Your task to perform on an android device: clear history in the chrome app Image 0: 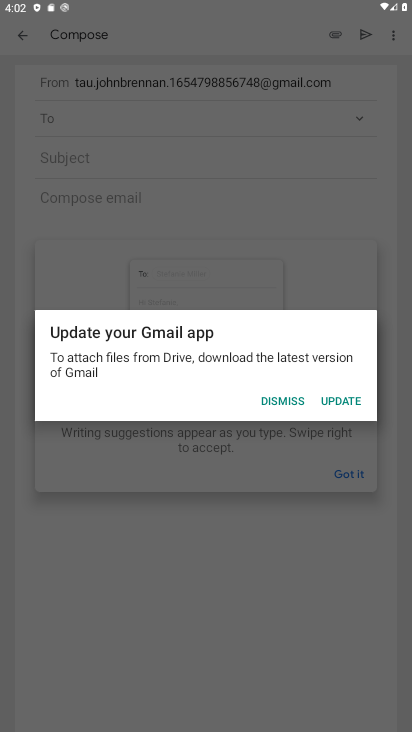
Step 0: press back button
Your task to perform on an android device: clear history in the chrome app Image 1: 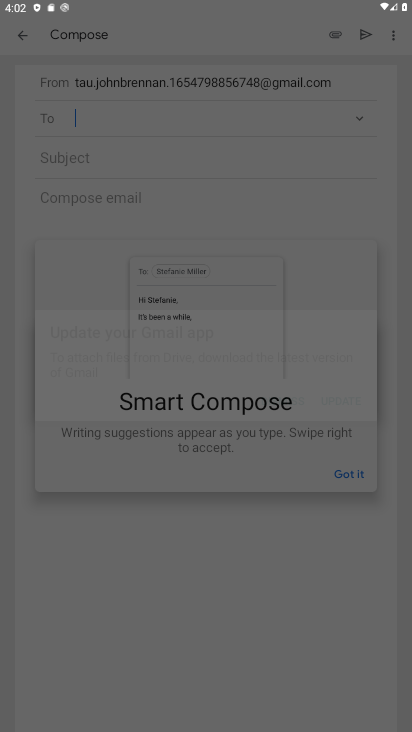
Step 1: press back button
Your task to perform on an android device: clear history in the chrome app Image 2: 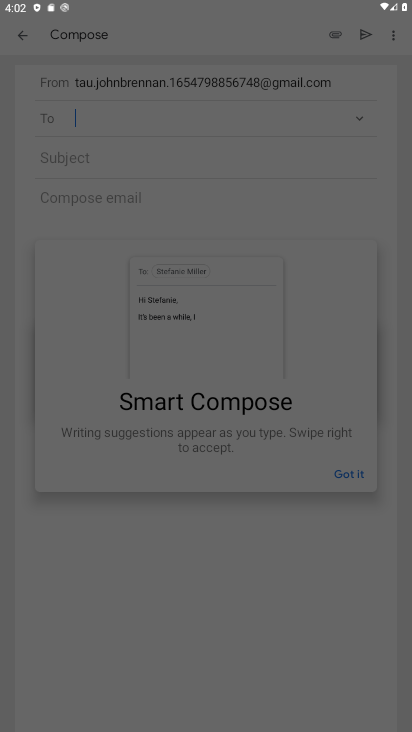
Step 2: click (285, 393)
Your task to perform on an android device: clear history in the chrome app Image 3: 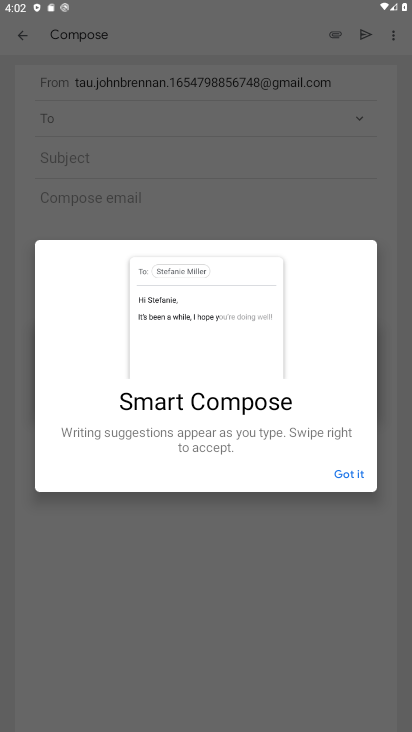
Step 3: click (349, 463)
Your task to perform on an android device: clear history in the chrome app Image 4: 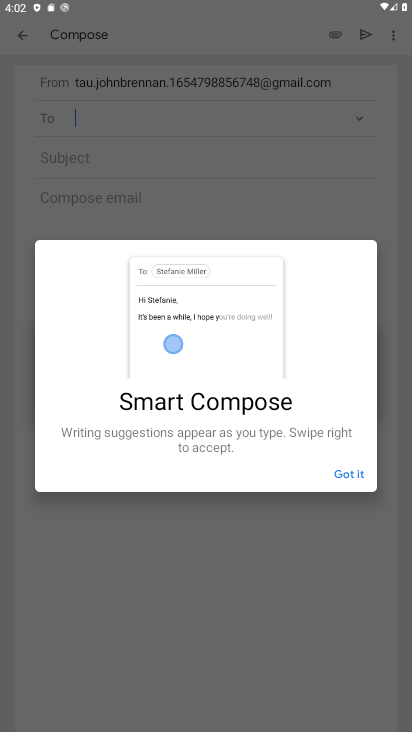
Step 4: click (345, 470)
Your task to perform on an android device: clear history in the chrome app Image 5: 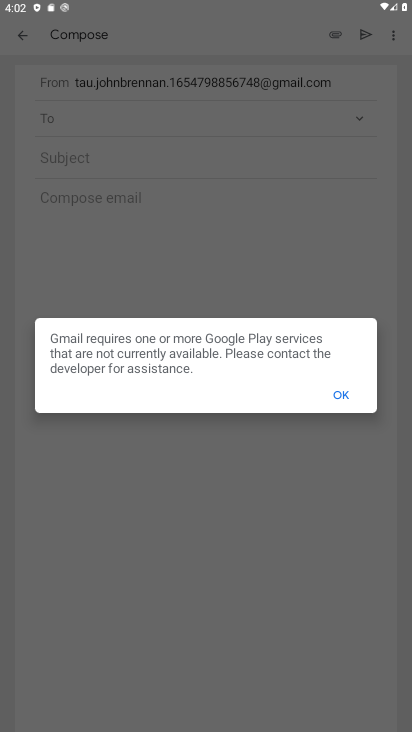
Step 5: click (345, 464)
Your task to perform on an android device: clear history in the chrome app Image 6: 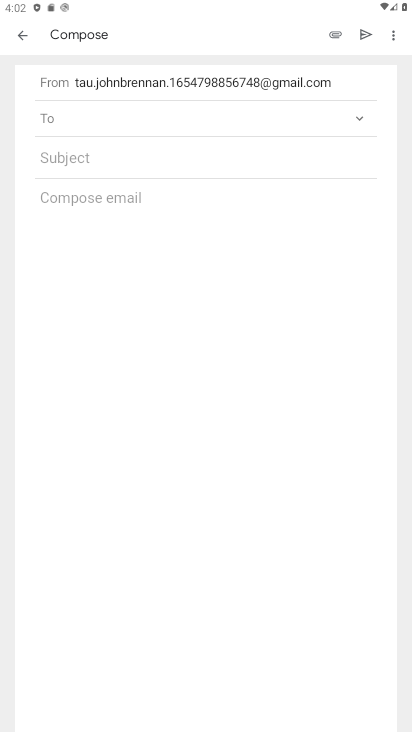
Step 6: click (345, 464)
Your task to perform on an android device: clear history in the chrome app Image 7: 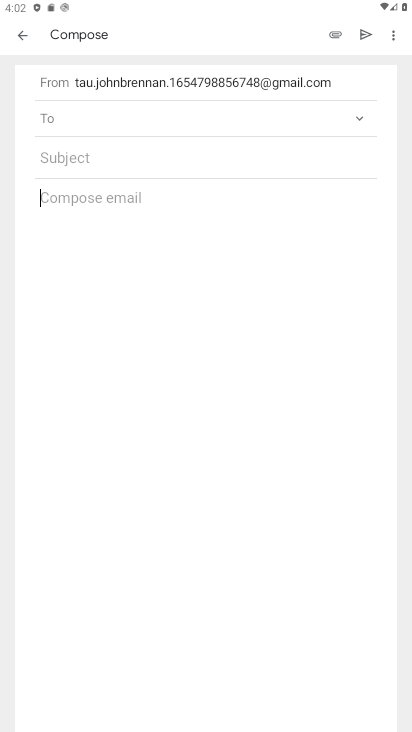
Step 7: click (348, 455)
Your task to perform on an android device: clear history in the chrome app Image 8: 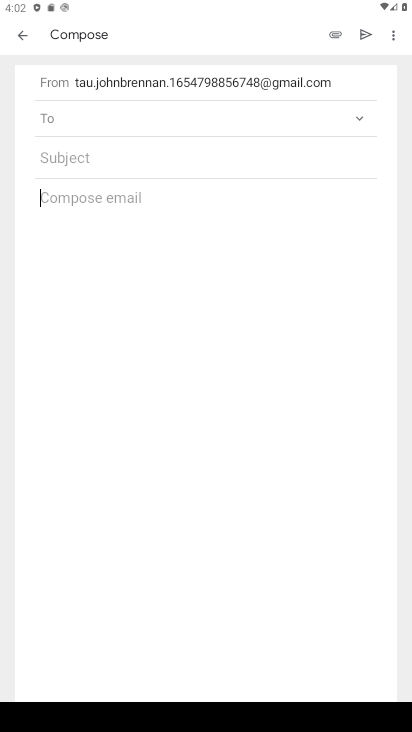
Step 8: click (25, 33)
Your task to perform on an android device: clear history in the chrome app Image 9: 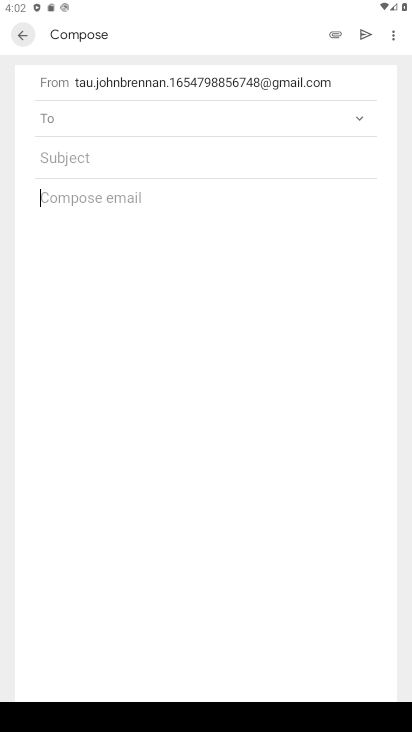
Step 9: click (29, 30)
Your task to perform on an android device: clear history in the chrome app Image 10: 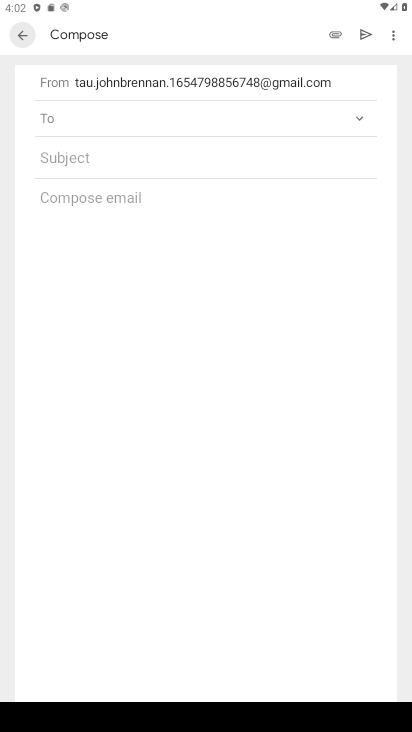
Step 10: click (29, 30)
Your task to perform on an android device: clear history in the chrome app Image 11: 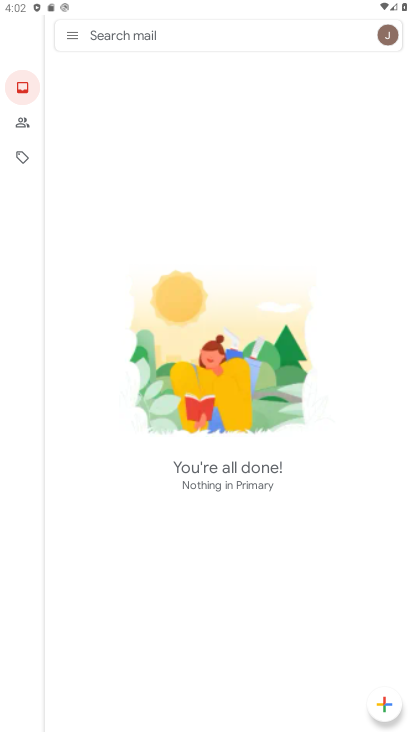
Step 11: press back button
Your task to perform on an android device: clear history in the chrome app Image 12: 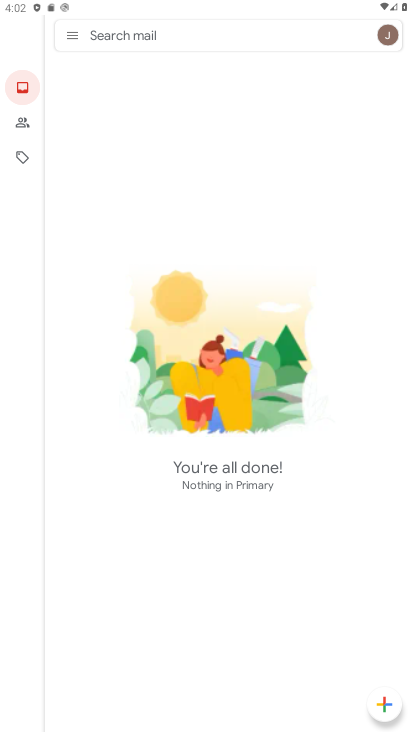
Step 12: press back button
Your task to perform on an android device: clear history in the chrome app Image 13: 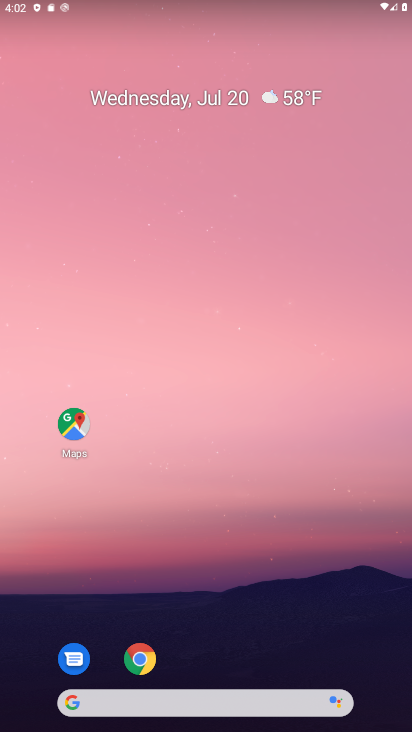
Step 13: press back button
Your task to perform on an android device: clear history in the chrome app Image 14: 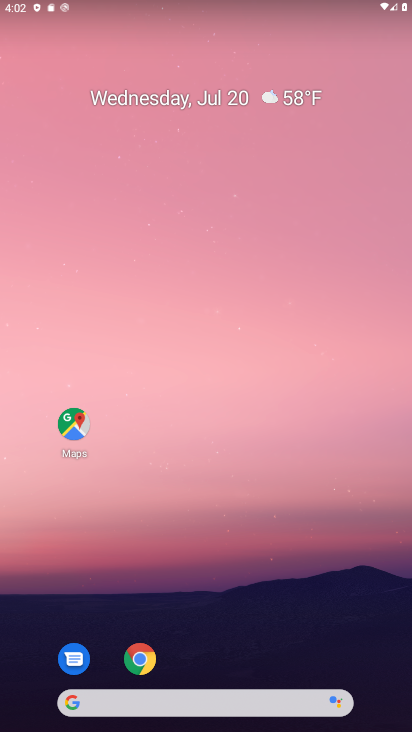
Step 14: drag from (169, 627) to (29, 72)
Your task to perform on an android device: clear history in the chrome app Image 15: 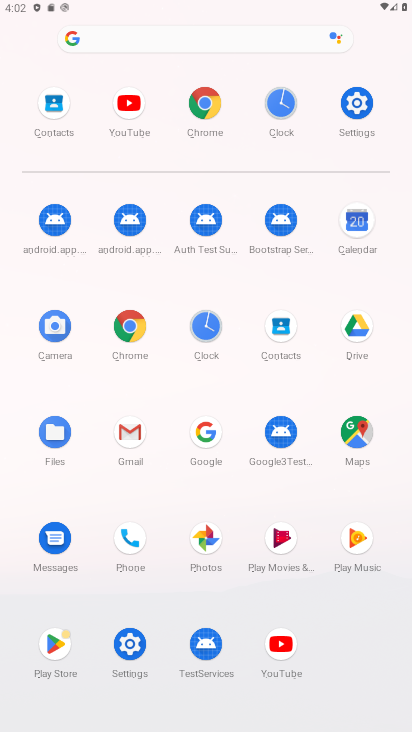
Step 15: click (205, 96)
Your task to perform on an android device: clear history in the chrome app Image 16: 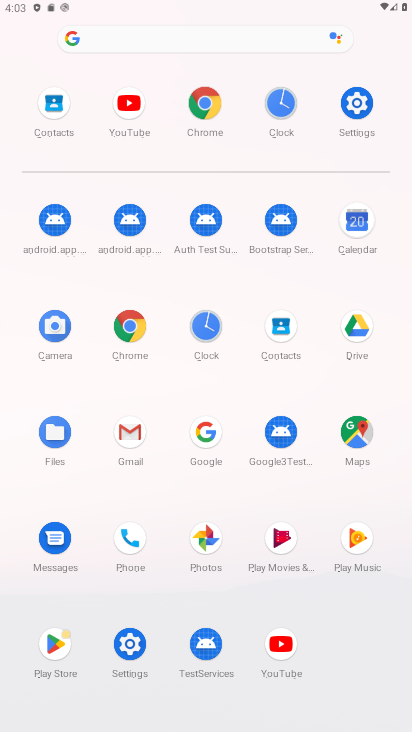
Step 16: click (205, 97)
Your task to perform on an android device: clear history in the chrome app Image 17: 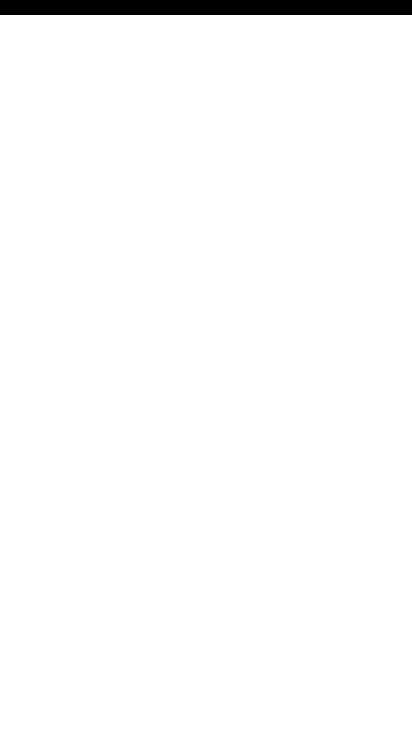
Step 17: click (205, 97)
Your task to perform on an android device: clear history in the chrome app Image 18: 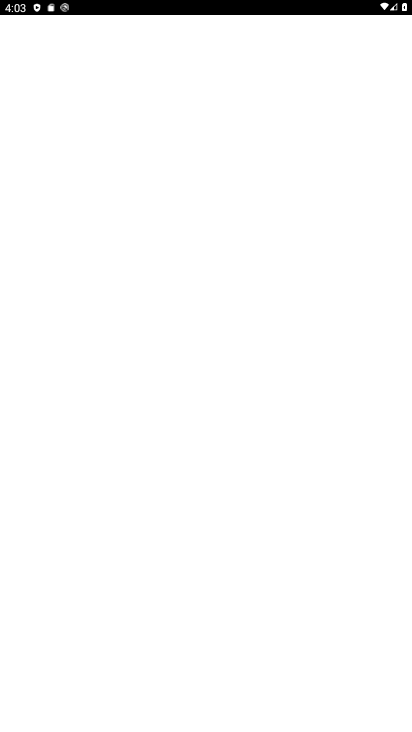
Step 18: click (205, 97)
Your task to perform on an android device: clear history in the chrome app Image 19: 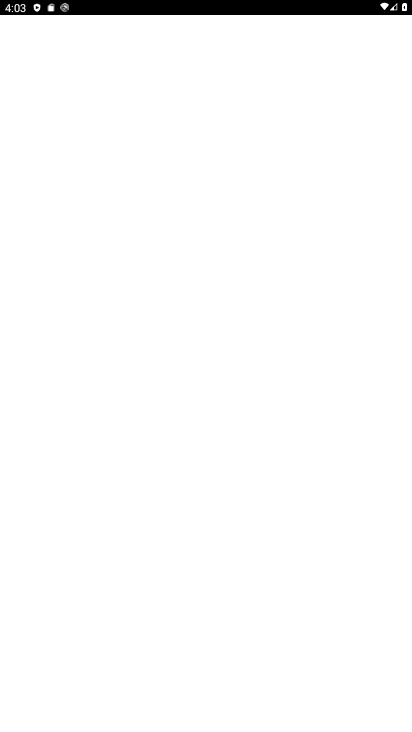
Step 19: click (205, 97)
Your task to perform on an android device: clear history in the chrome app Image 20: 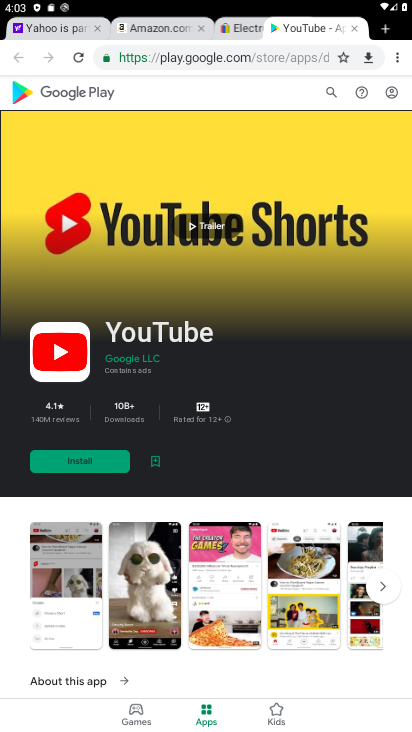
Step 20: drag from (389, 57) to (274, 175)
Your task to perform on an android device: clear history in the chrome app Image 21: 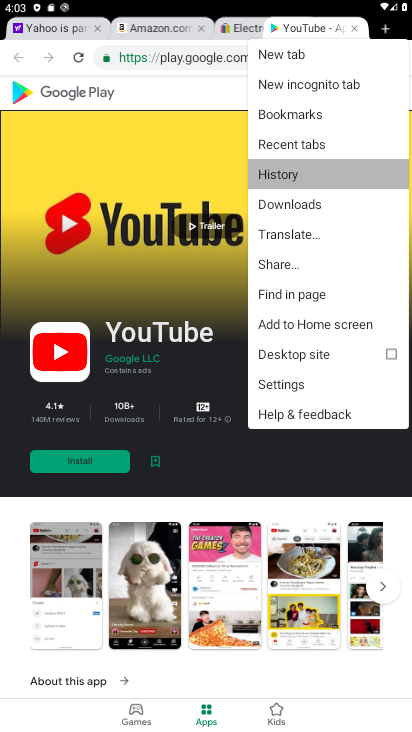
Step 21: click (275, 176)
Your task to perform on an android device: clear history in the chrome app Image 22: 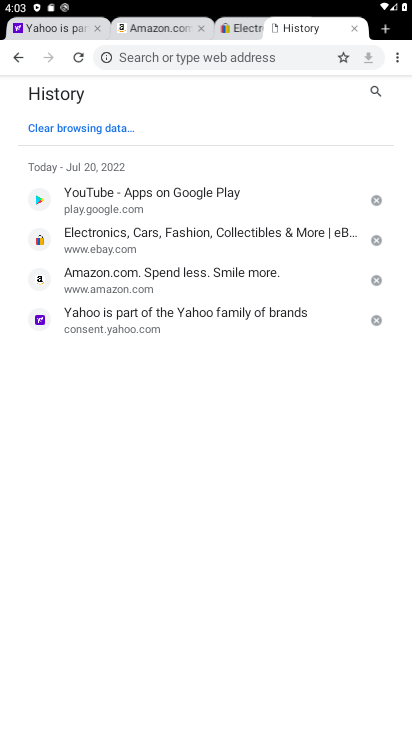
Step 22: click (82, 117)
Your task to perform on an android device: clear history in the chrome app Image 23: 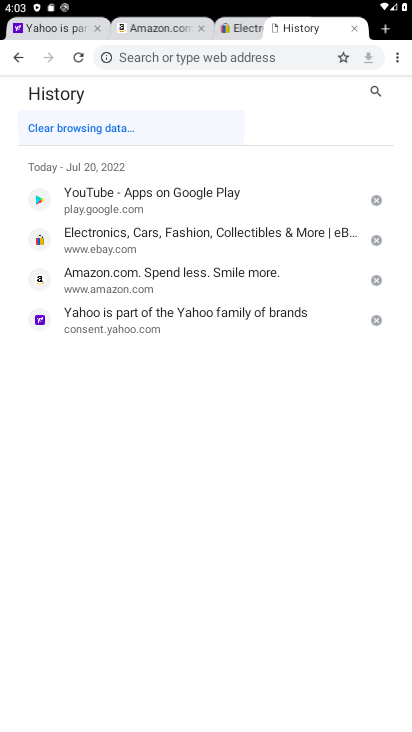
Step 23: click (80, 118)
Your task to perform on an android device: clear history in the chrome app Image 24: 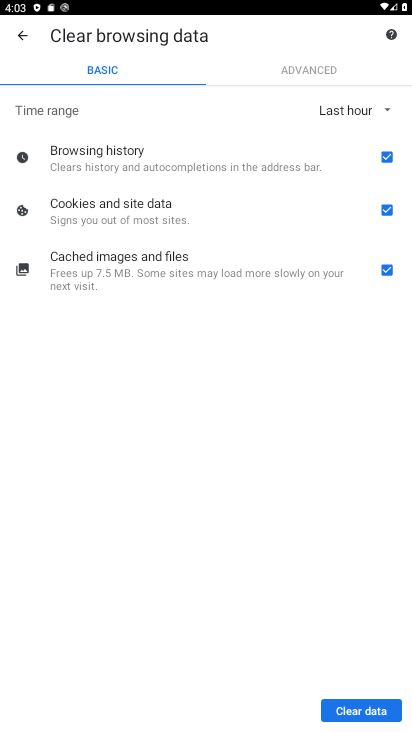
Step 24: click (375, 727)
Your task to perform on an android device: clear history in the chrome app Image 25: 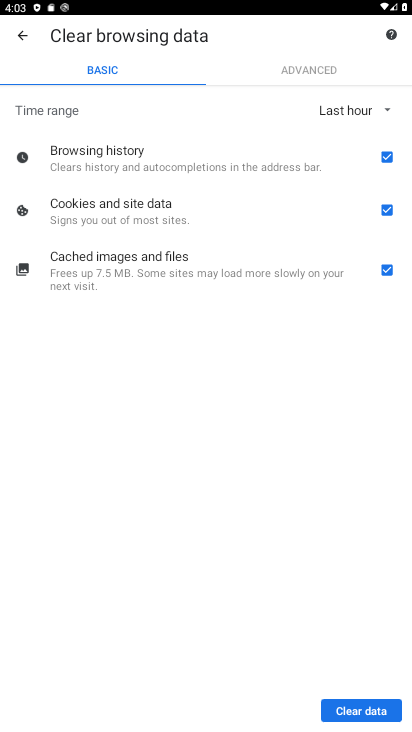
Step 25: click (373, 702)
Your task to perform on an android device: clear history in the chrome app Image 26: 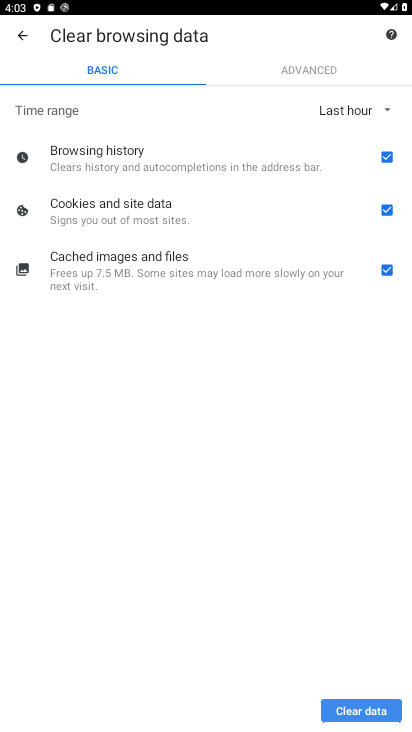
Step 26: click (373, 702)
Your task to perform on an android device: clear history in the chrome app Image 27: 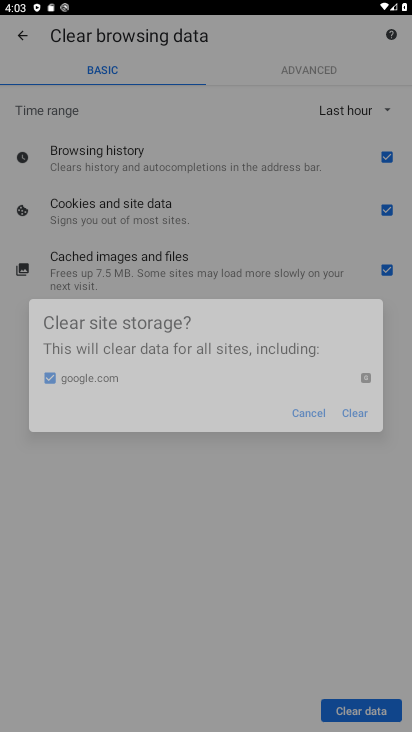
Step 27: click (373, 702)
Your task to perform on an android device: clear history in the chrome app Image 28: 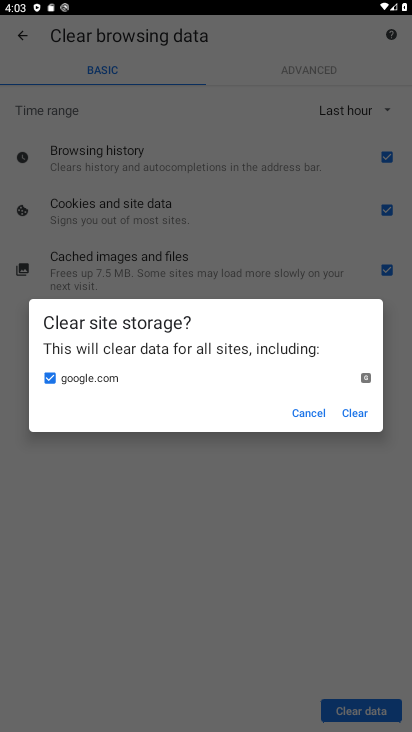
Step 28: task complete